Your task to perform on an android device: delete browsing data in the chrome app Image 0: 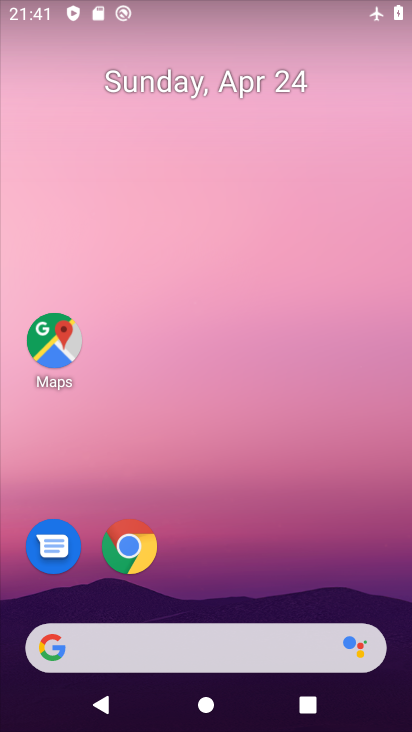
Step 0: drag from (263, 586) to (266, 266)
Your task to perform on an android device: delete browsing data in the chrome app Image 1: 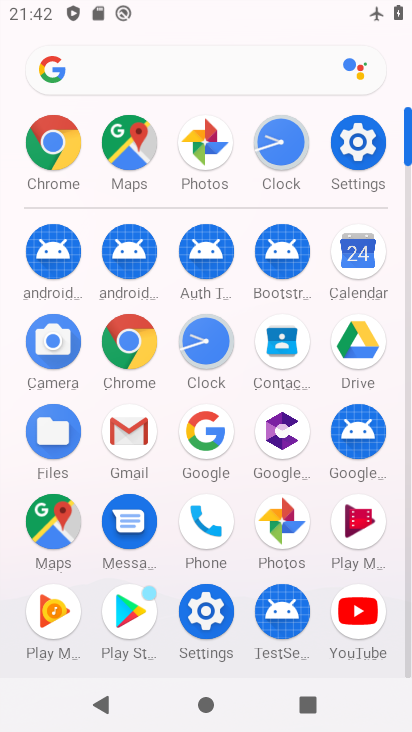
Step 1: click (130, 341)
Your task to perform on an android device: delete browsing data in the chrome app Image 2: 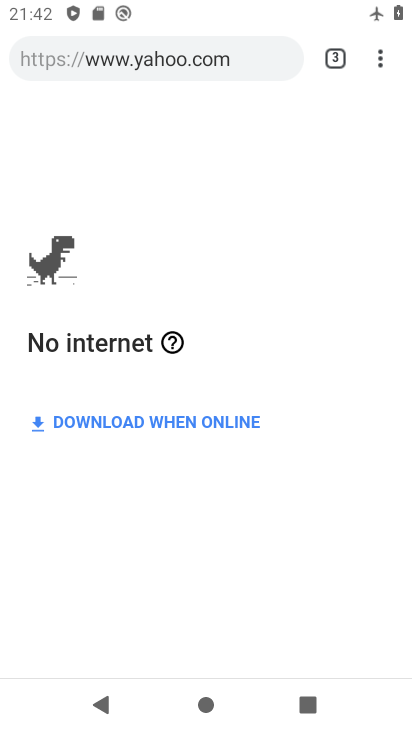
Step 2: click (377, 61)
Your task to perform on an android device: delete browsing data in the chrome app Image 3: 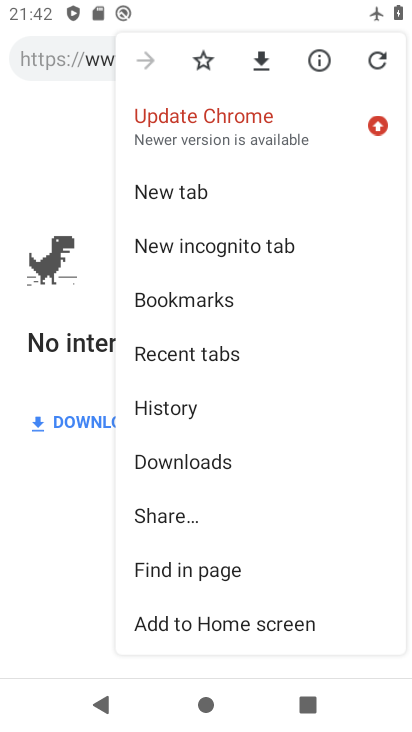
Step 3: drag from (227, 585) to (284, 212)
Your task to perform on an android device: delete browsing data in the chrome app Image 4: 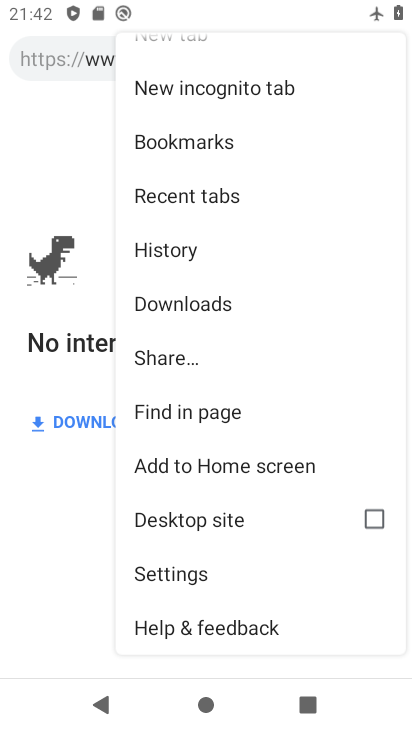
Step 4: click (192, 565)
Your task to perform on an android device: delete browsing data in the chrome app Image 5: 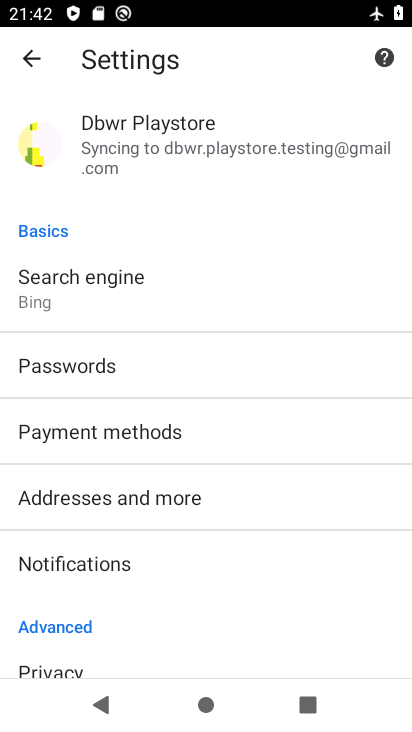
Step 5: drag from (206, 582) to (210, 256)
Your task to perform on an android device: delete browsing data in the chrome app Image 6: 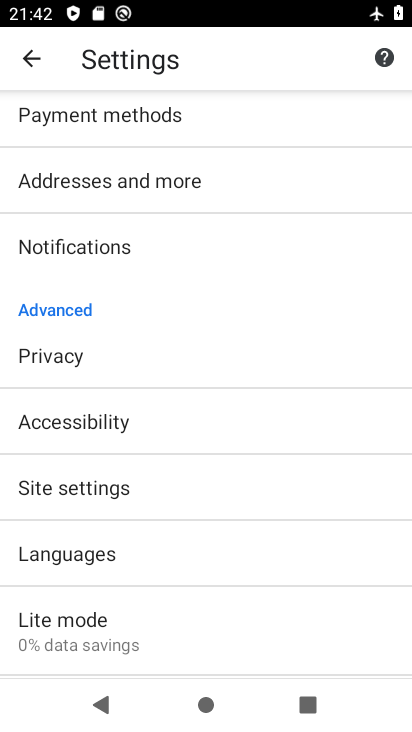
Step 6: click (135, 359)
Your task to perform on an android device: delete browsing data in the chrome app Image 7: 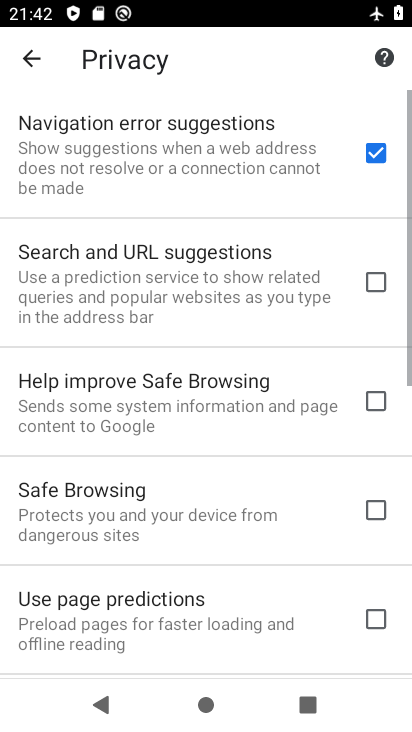
Step 7: drag from (226, 594) to (260, 191)
Your task to perform on an android device: delete browsing data in the chrome app Image 8: 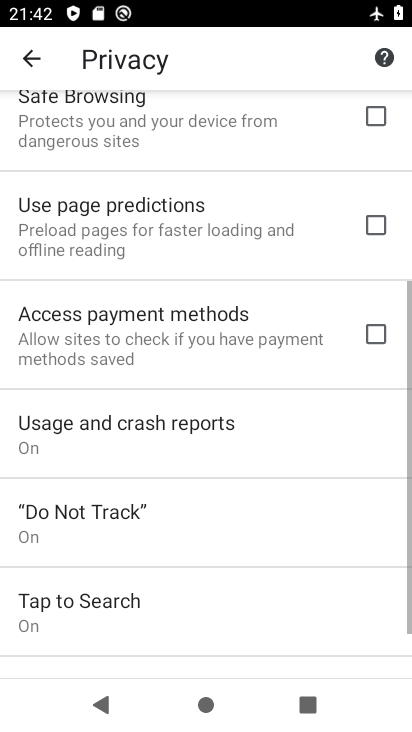
Step 8: drag from (217, 588) to (263, 138)
Your task to perform on an android device: delete browsing data in the chrome app Image 9: 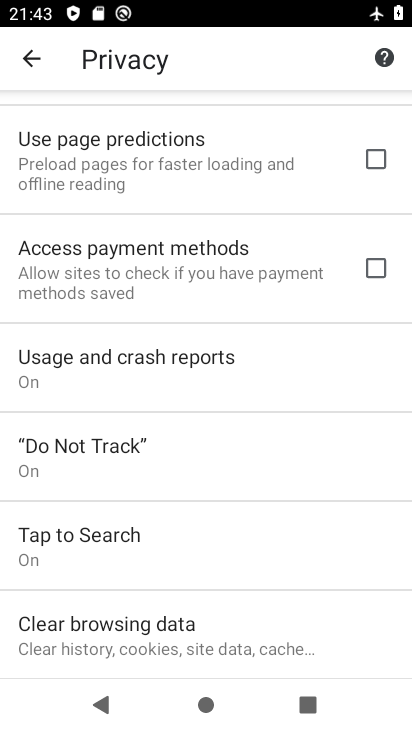
Step 9: click (207, 637)
Your task to perform on an android device: delete browsing data in the chrome app Image 10: 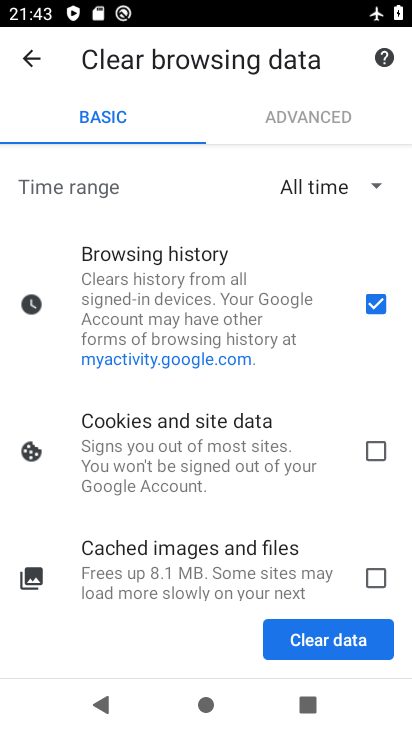
Step 10: click (327, 633)
Your task to perform on an android device: delete browsing data in the chrome app Image 11: 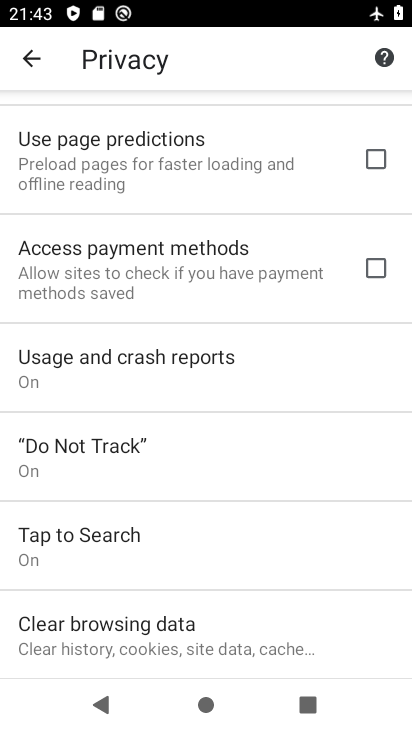
Step 11: task complete